Your task to perform on an android device: Open display settings Image 0: 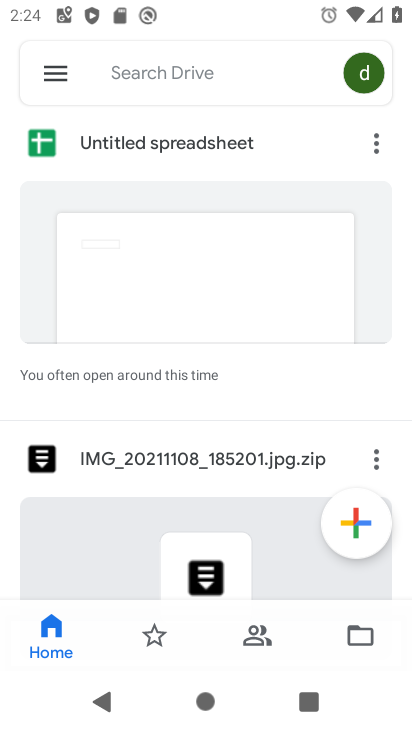
Step 0: press home button
Your task to perform on an android device: Open display settings Image 1: 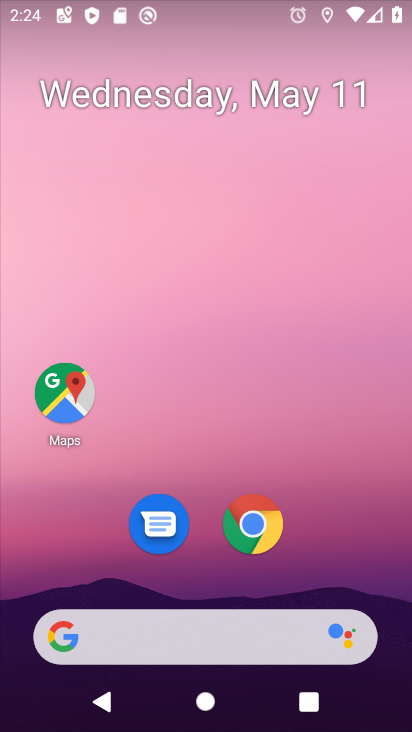
Step 1: drag from (299, 523) to (266, 69)
Your task to perform on an android device: Open display settings Image 2: 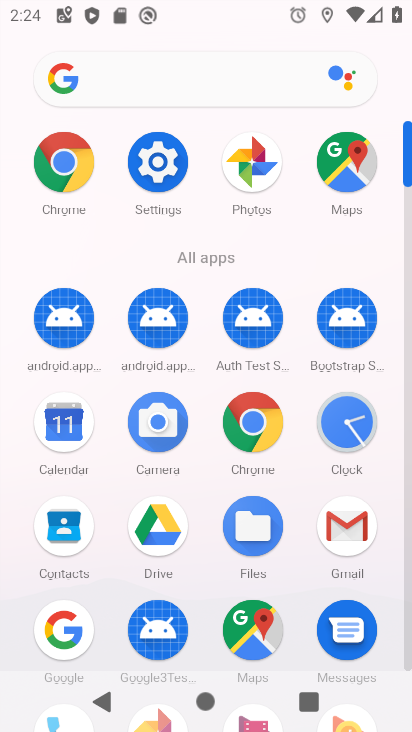
Step 2: click (161, 173)
Your task to perform on an android device: Open display settings Image 3: 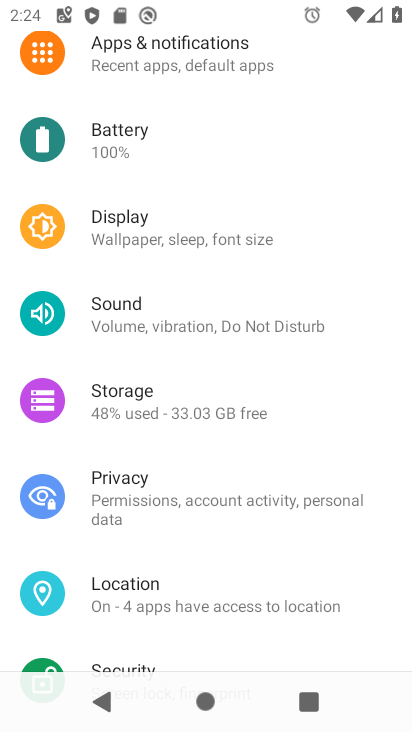
Step 3: click (230, 227)
Your task to perform on an android device: Open display settings Image 4: 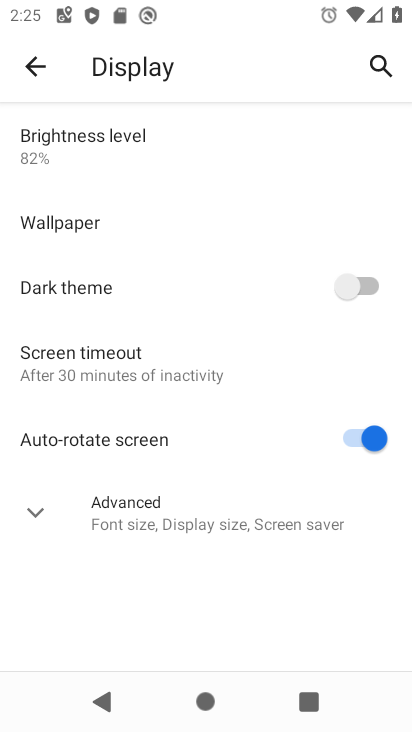
Step 4: task complete